Your task to perform on an android device: star an email in the gmail app Image 0: 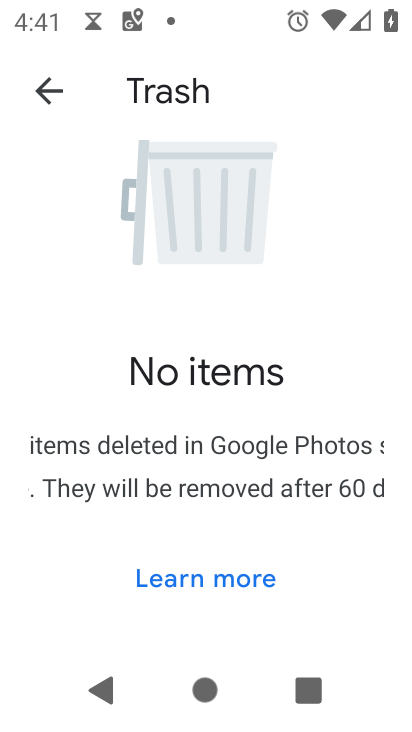
Step 0: press home button
Your task to perform on an android device: star an email in the gmail app Image 1: 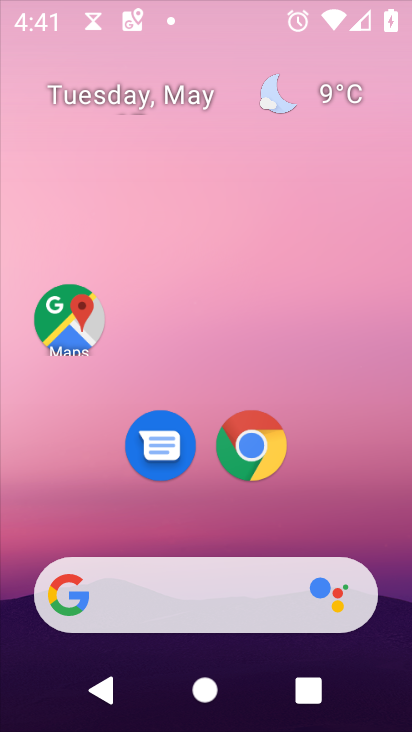
Step 1: drag from (307, 588) to (323, 98)
Your task to perform on an android device: star an email in the gmail app Image 2: 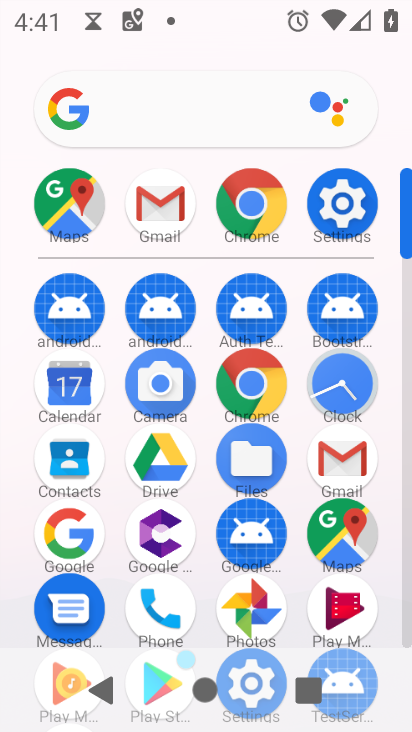
Step 2: click (352, 468)
Your task to perform on an android device: star an email in the gmail app Image 3: 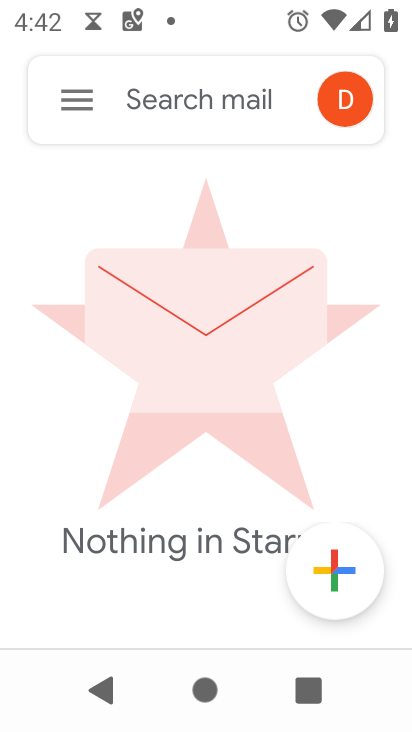
Step 3: task complete